Your task to perform on an android device: turn off notifications settings in the gmail app Image 0: 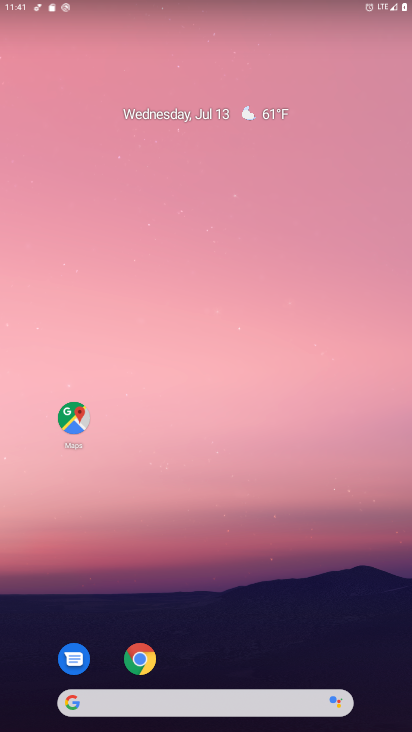
Step 0: press home button
Your task to perform on an android device: turn off notifications settings in the gmail app Image 1: 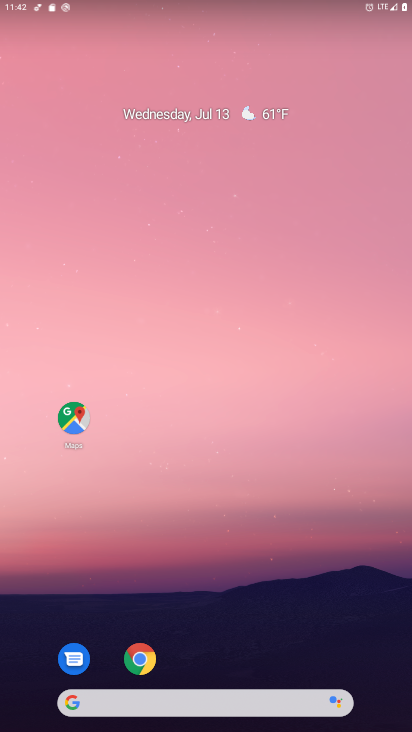
Step 1: drag from (207, 672) to (207, 1)
Your task to perform on an android device: turn off notifications settings in the gmail app Image 2: 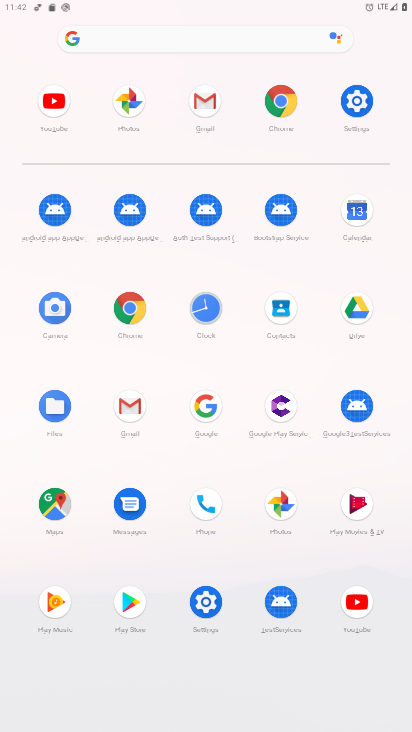
Step 2: click (129, 398)
Your task to perform on an android device: turn off notifications settings in the gmail app Image 3: 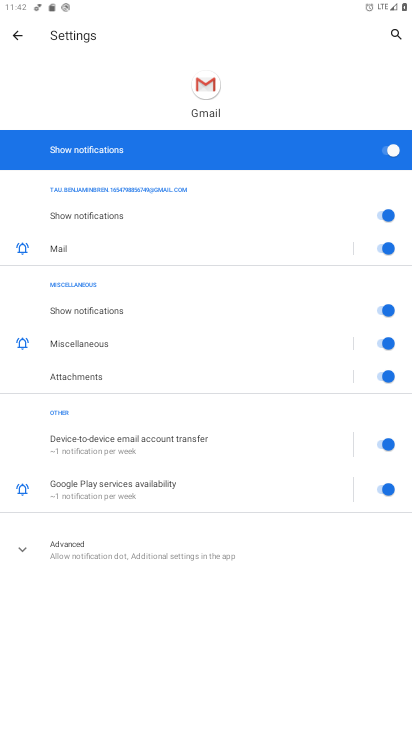
Step 3: click (388, 149)
Your task to perform on an android device: turn off notifications settings in the gmail app Image 4: 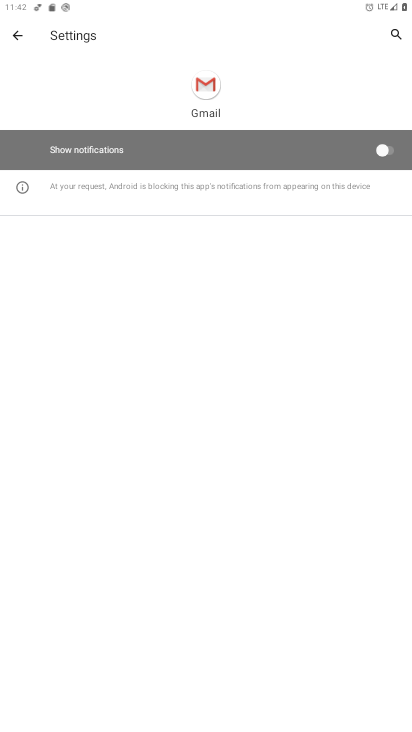
Step 4: task complete